Your task to perform on an android device: see sites visited before in the chrome app Image 0: 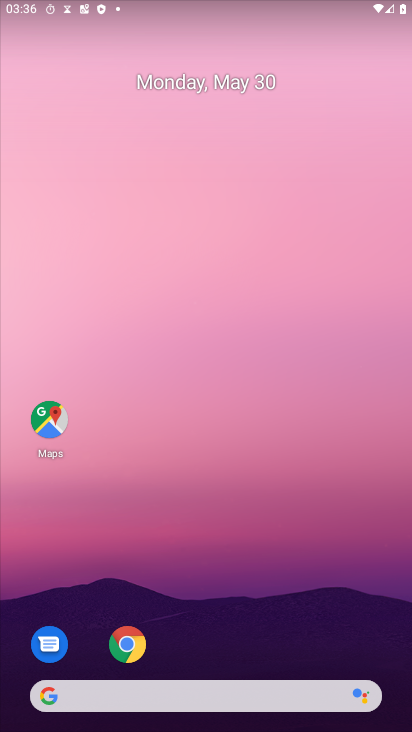
Step 0: press home button
Your task to perform on an android device: see sites visited before in the chrome app Image 1: 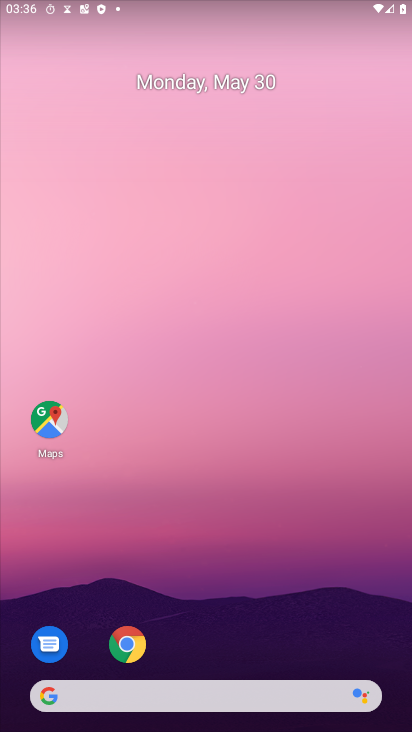
Step 1: click (127, 644)
Your task to perform on an android device: see sites visited before in the chrome app Image 2: 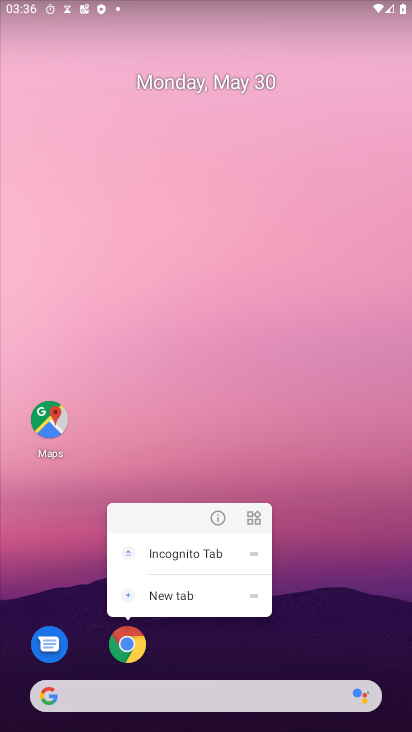
Step 2: click (267, 670)
Your task to perform on an android device: see sites visited before in the chrome app Image 3: 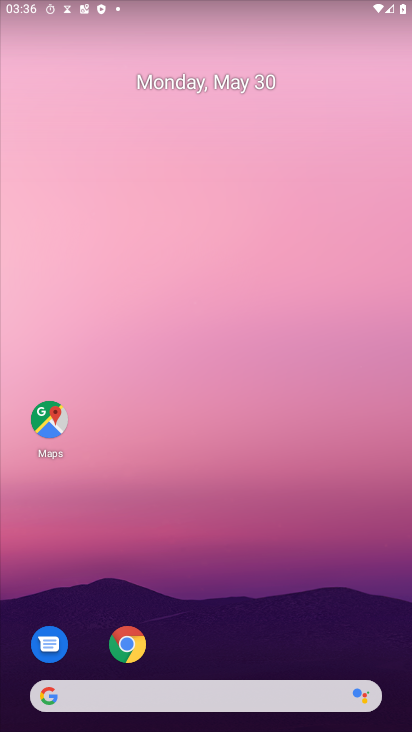
Step 3: drag from (342, 659) to (313, 194)
Your task to perform on an android device: see sites visited before in the chrome app Image 4: 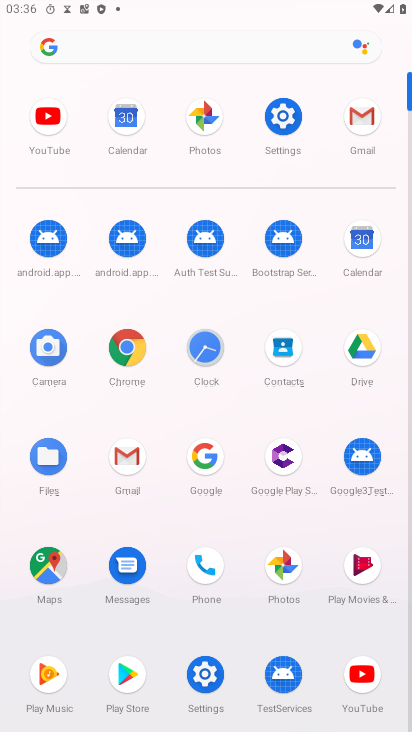
Step 4: click (134, 347)
Your task to perform on an android device: see sites visited before in the chrome app Image 5: 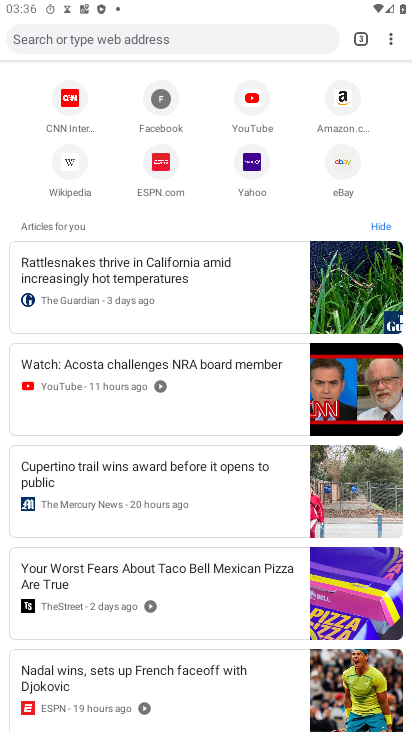
Step 5: task complete